Your task to perform on an android device: Go to privacy settings Image 0: 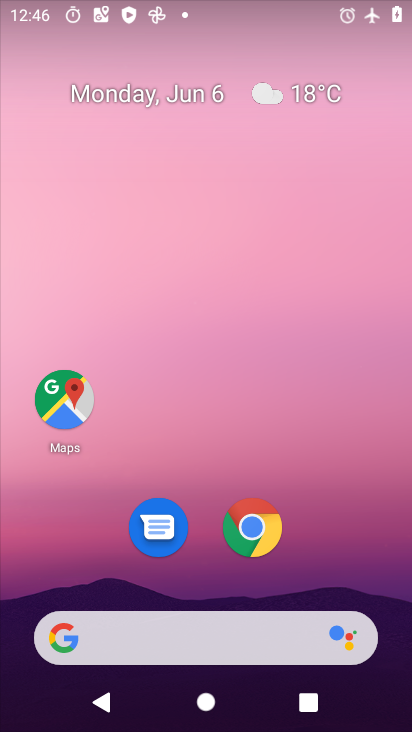
Step 0: drag from (334, 381) to (167, 1)
Your task to perform on an android device: Go to privacy settings Image 1: 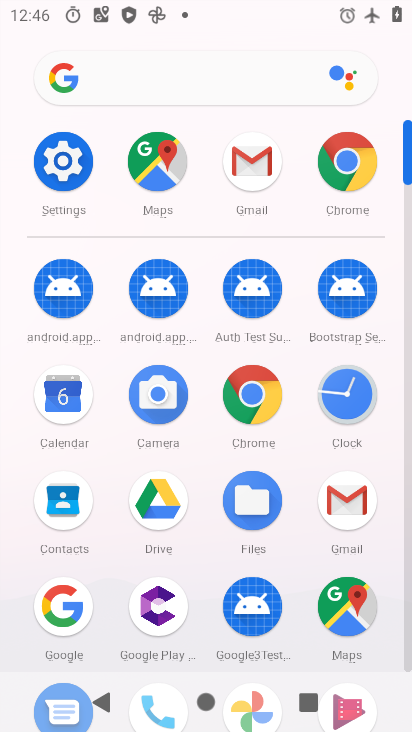
Step 1: click (67, 147)
Your task to perform on an android device: Go to privacy settings Image 2: 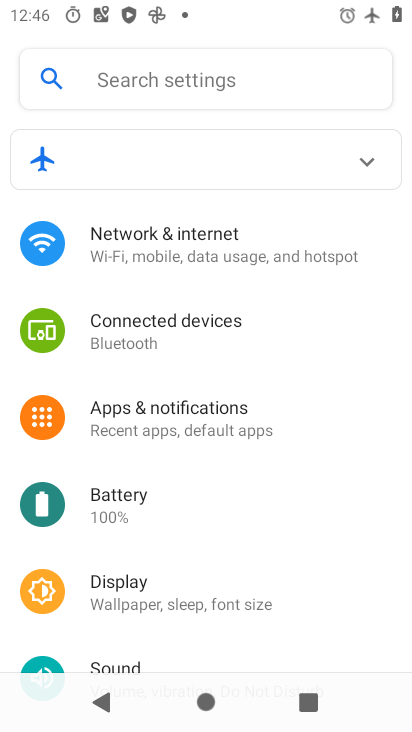
Step 2: drag from (260, 523) to (340, 92)
Your task to perform on an android device: Go to privacy settings Image 3: 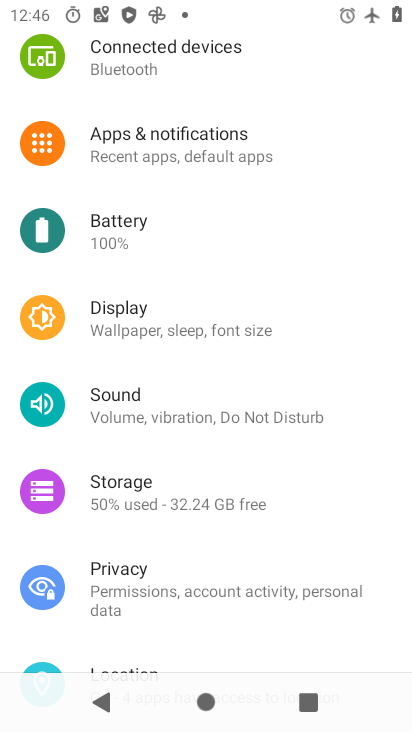
Step 3: click (163, 566)
Your task to perform on an android device: Go to privacy settings Image 4: 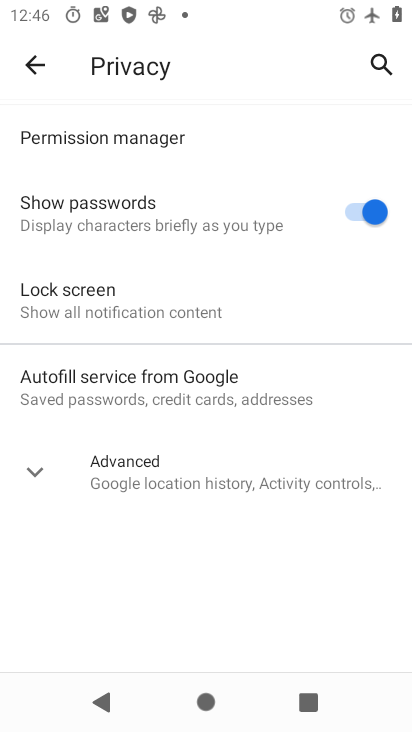
Step 4: task complete